Your task to perform on an android device: Go to CNN.com Image 0: 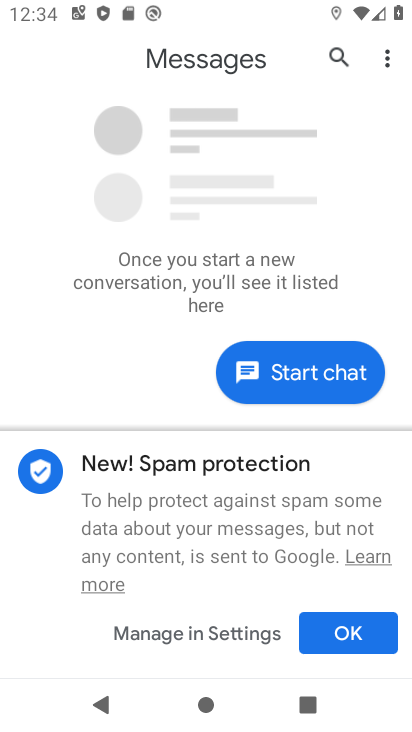
Step 0: press home button
Your task to perform on an android device: Go to CNN.com Image 1: 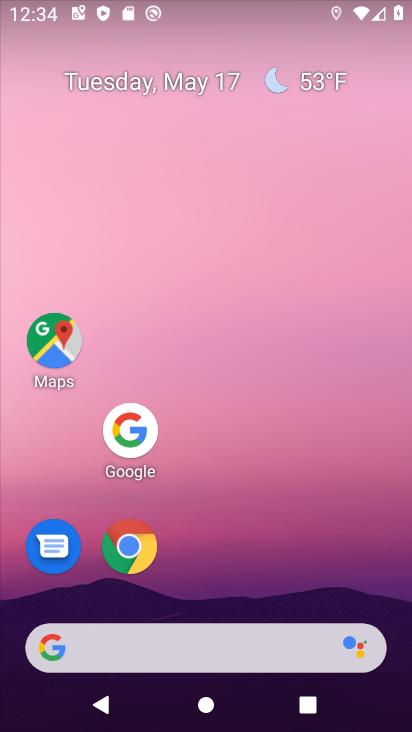
Step 1: click (130, 431)
Your task to perform on an android device: Go to CNN.com Image 2: 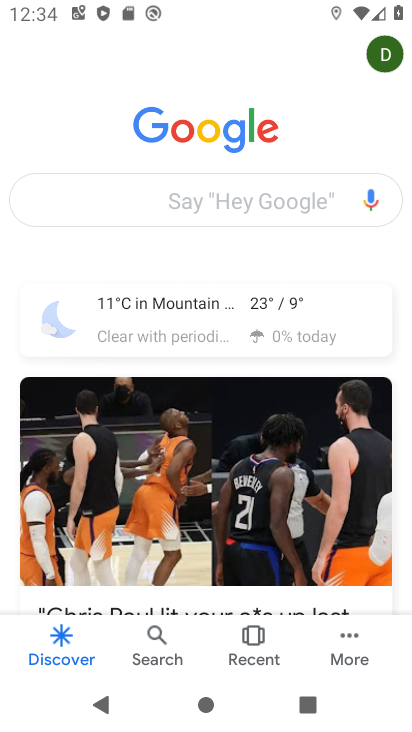
Step 2: click (200, 201)
Your task to perform on an android device: Go to CNN.com Image 3: 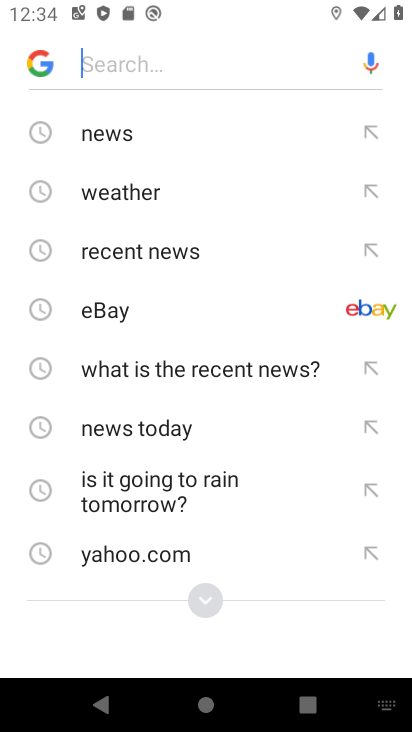
Step 3: type "cnn.com"
Your task to perform on an android device: Go to CNN.com Image 4: 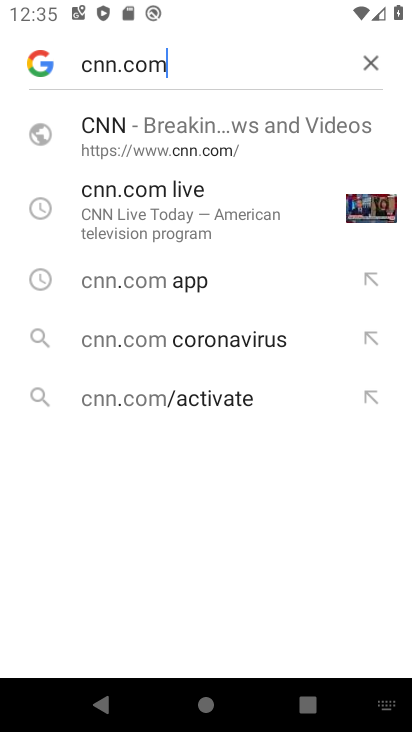
Step 4: click (304, 117)
Your task to perform on an android device: Go to CNN.com Image 5: 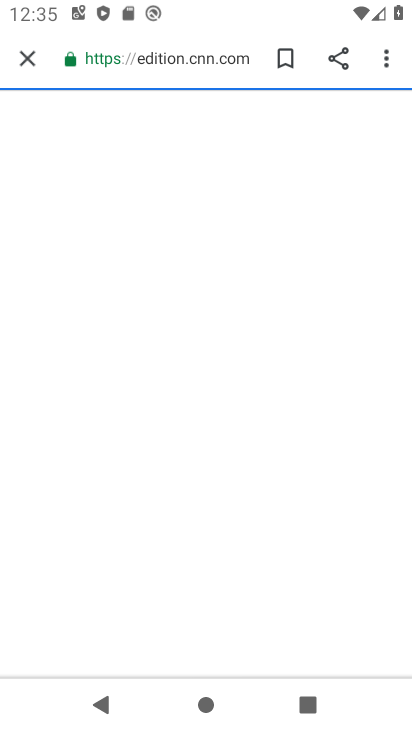
Step 5: task complete